Your task to perform on an android device: toggle location history Image 0: 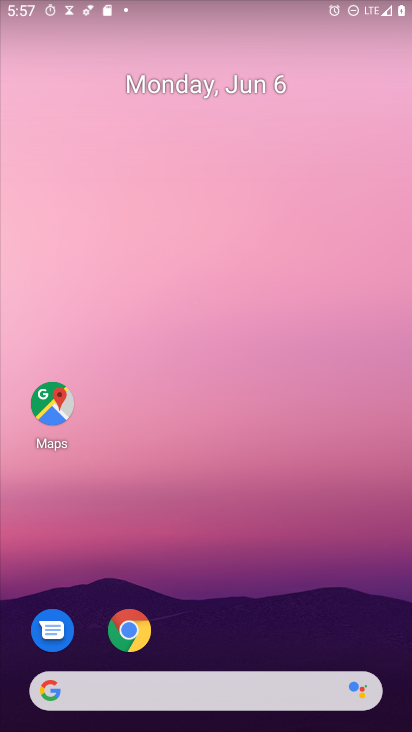
Step 0: drag from (277, 550) to (232, 12)
Your task to perform on an android device: toggle location history Image 1: 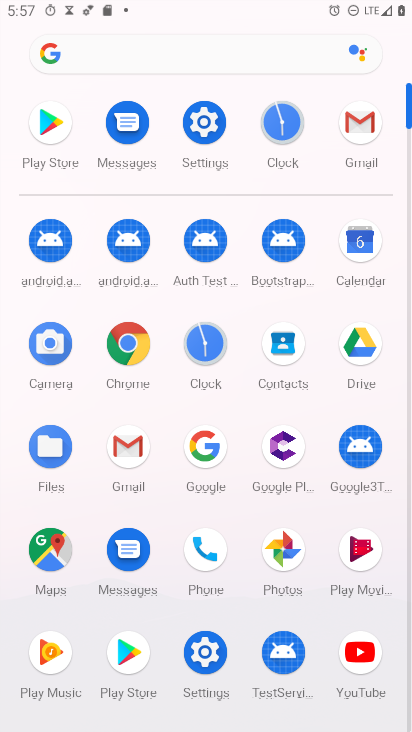
Step 1: click (199, 125)
Your task to perform on an android device: toggle location history Image 2: 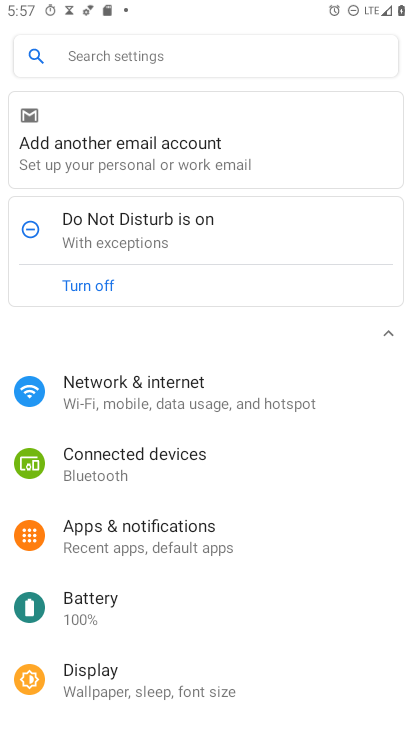
Step 2: drag from (264, 597) to (291, 105)
Your task to perform on an android device: toggle location history Image 3: 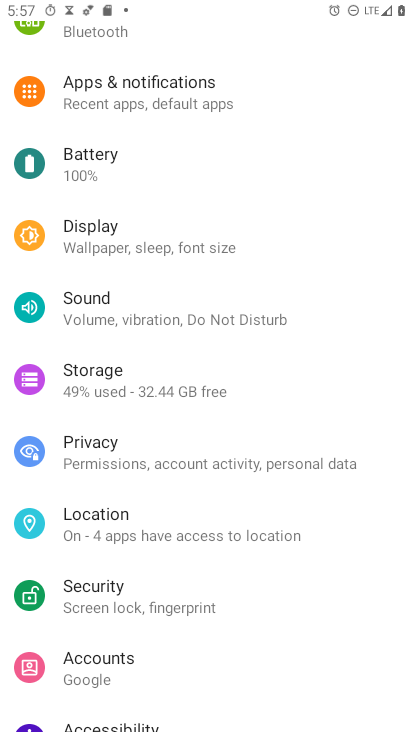
Step 3: click (213, 522)
Your task to perform on an android device: toggle location history Image 4: 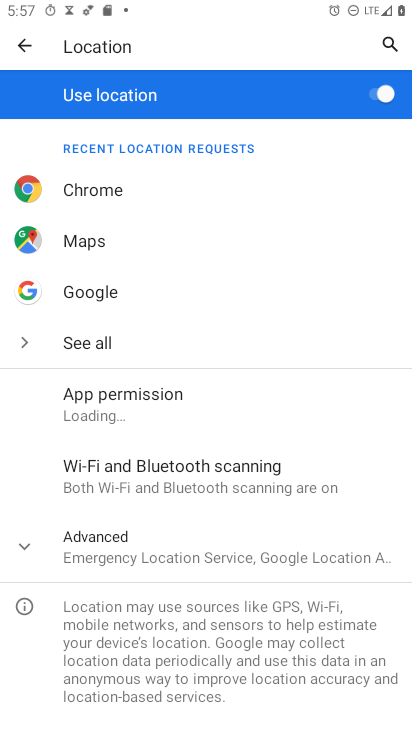
Step 4: click (194, 557)
Your task to perform on an android device: toggle location history Image 5: 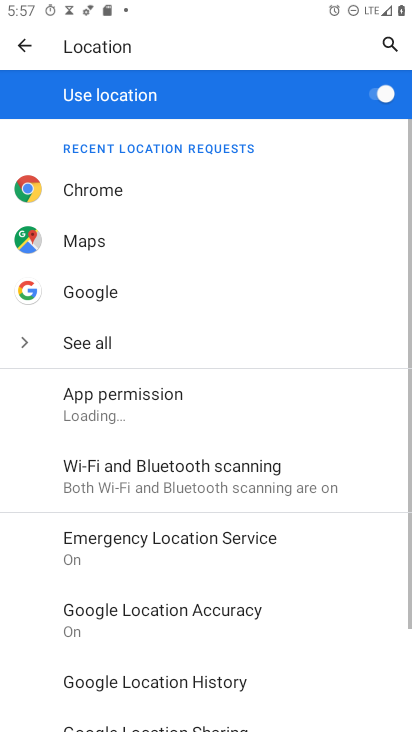
Step 5: drag from (215, 654) to (252, 131)
Your task to perform on an android device: toggle location history Image 6: 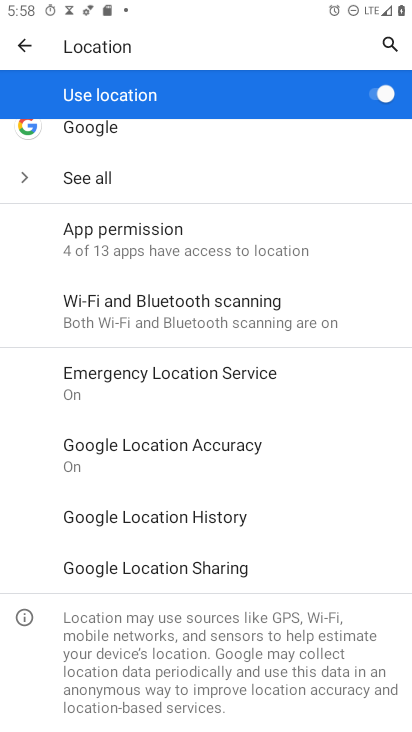
Step 6: click (203, 510)
Your task to perform on an android device: toggle location history Image 7: 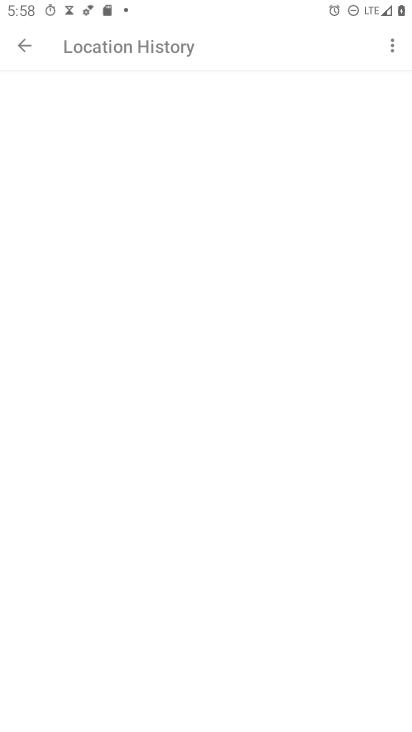
Step 7: drag from (292, 602) to (296, 122)
Your task to perform on an android device: toggle location history Image 8: 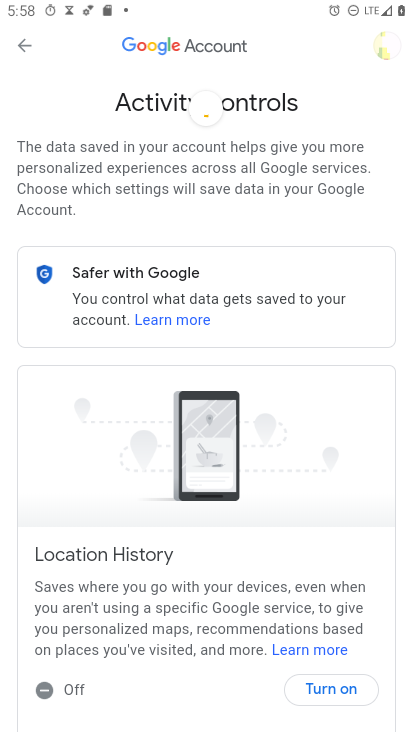
Step 8: drag from (255, 470) to (283, 194)
Your task to perform on an android device: toggle location history Image 9: 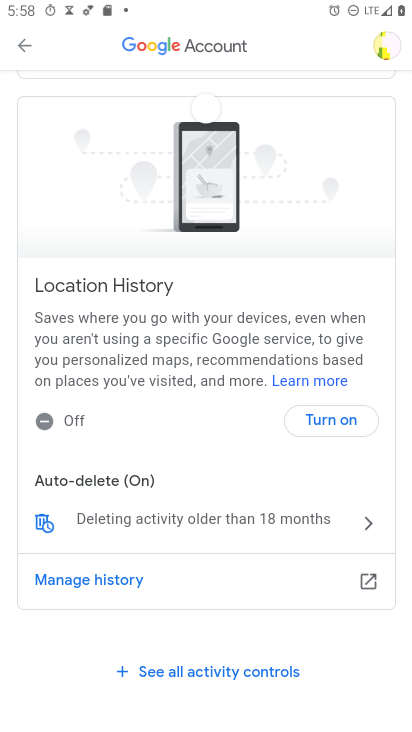
Step 9: click (343, 419)
Your task to perform on an android device: toggle location history Image 10: 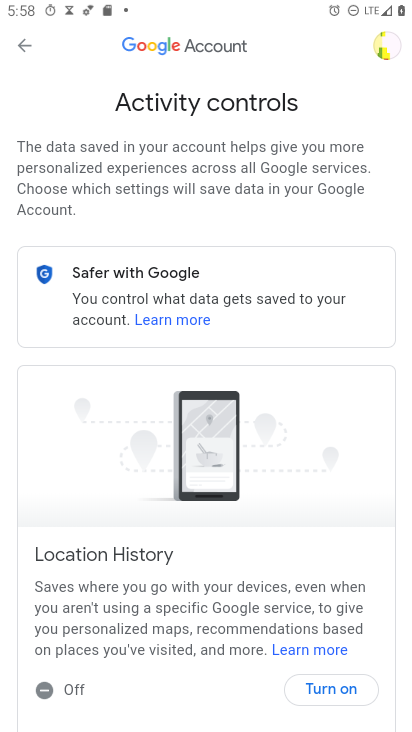
Step 10: drag from (226, 585) to (269, 30)
Your task to perform on an android device: toggle location history Image 11: 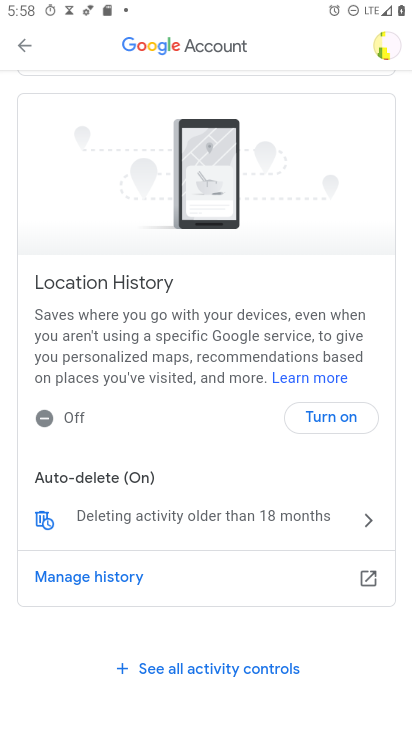
Step 11: click (325, 416)
Your task to perform on an android device: toggle location history Image 12: 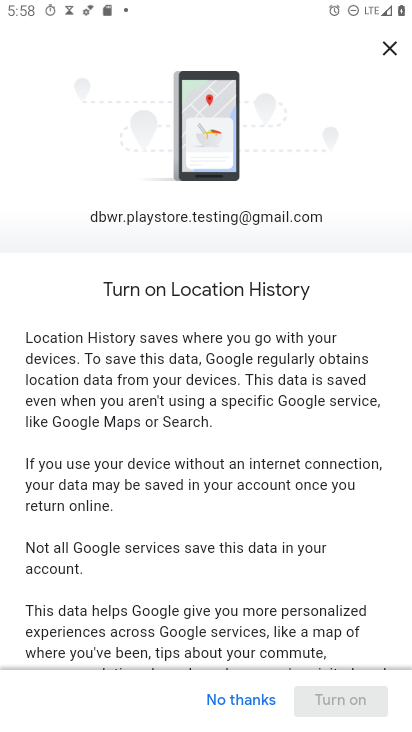
Step 12: drag from (285, 496) to (220, 15)
Your task to perform on an android device: toggle location history Image 13: 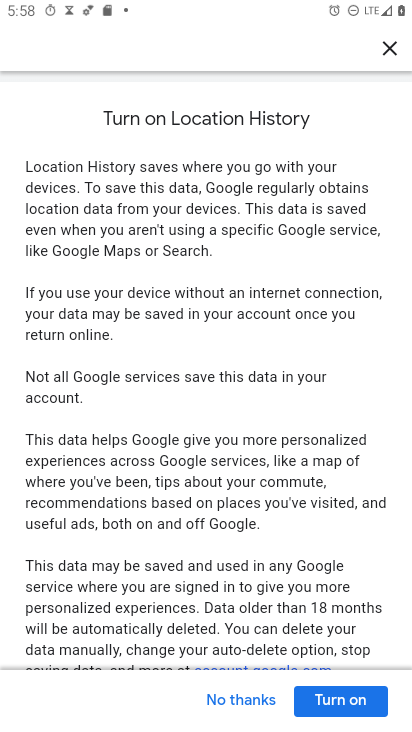
Step 13: click (357, 700)
Your task to perform on an android device: toggle location history Image 14: 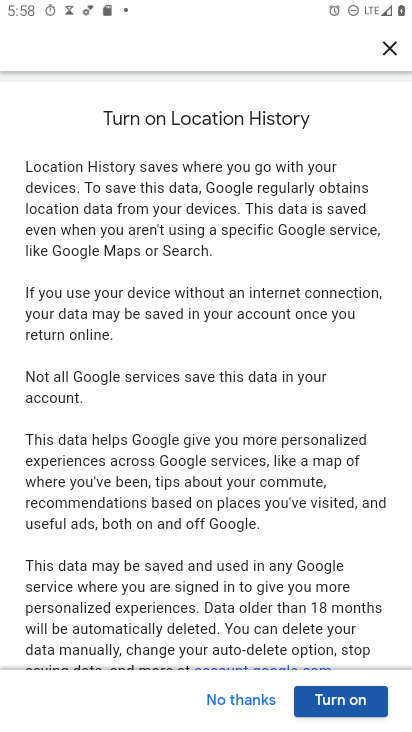
Step 14: click (351, 711)
Your task to perform on an android device: toggle location history Image 15: 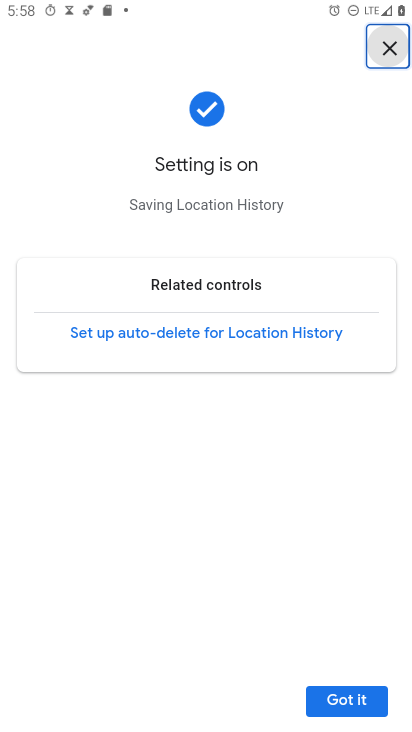
Step 15: click (356, 711)
Your task to perform on an android device: toggle location history Image 16: 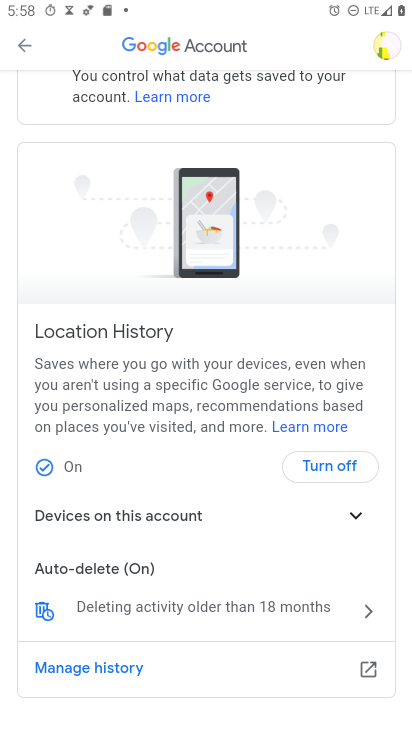
Step 16: task complete